Your task to perform on an android device: Open internet settings Image 0: 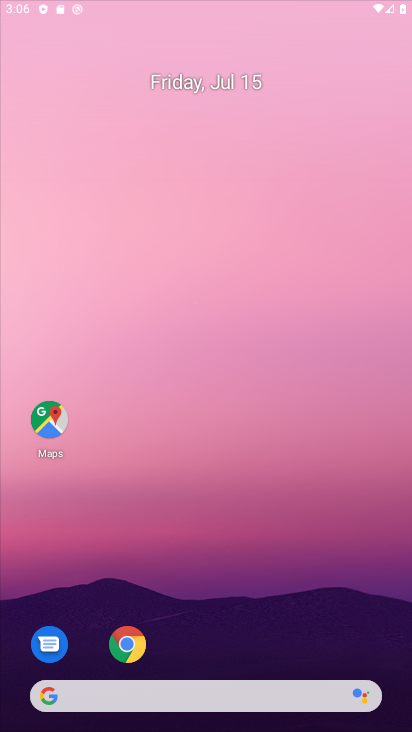
Step 0: drag from (200, 702) to (255, 34)
Your task to perform on an android device: Open internet settings Image 1: 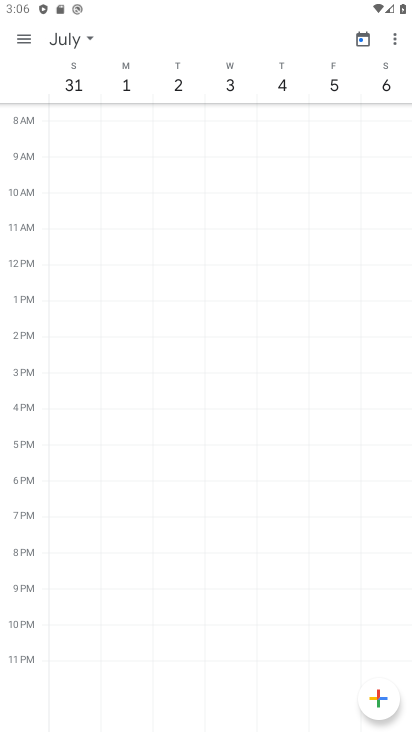
Step 1: press home button
Your task to perform on an android device: Open internet settings Image 2: 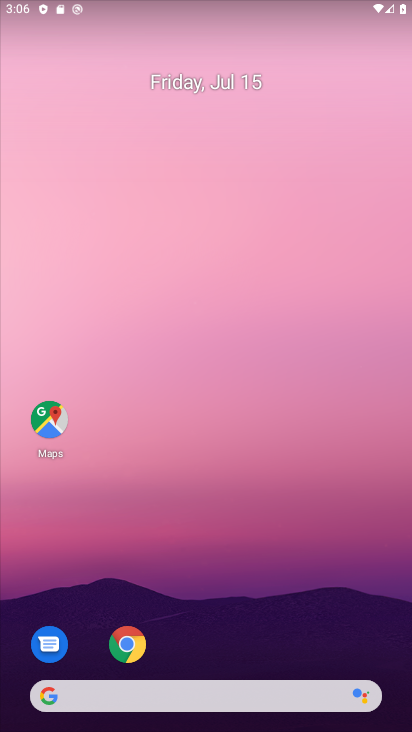
Step 2: drag from (178, 708) to (105, 2)
Your task to perform on an android device: Open internet settings Image 3: 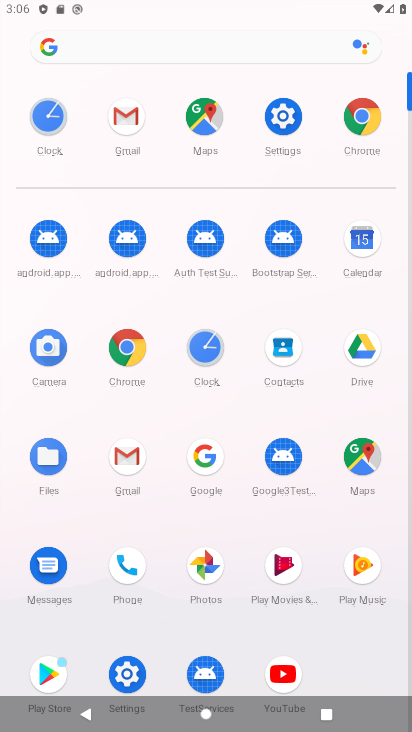
Step 3: click (291, 112)
Your task to perform on an android device: Open internet settings Image 4: 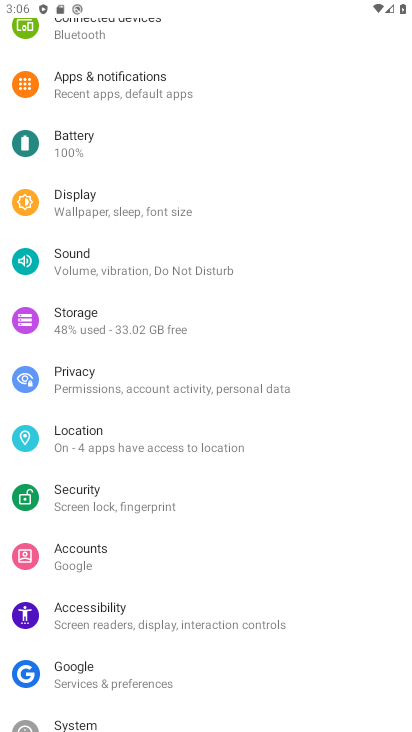
Step 4: drag from (111, 157) to (109, 462)
Your task to perform on an android device: Open internet settings Image 5: 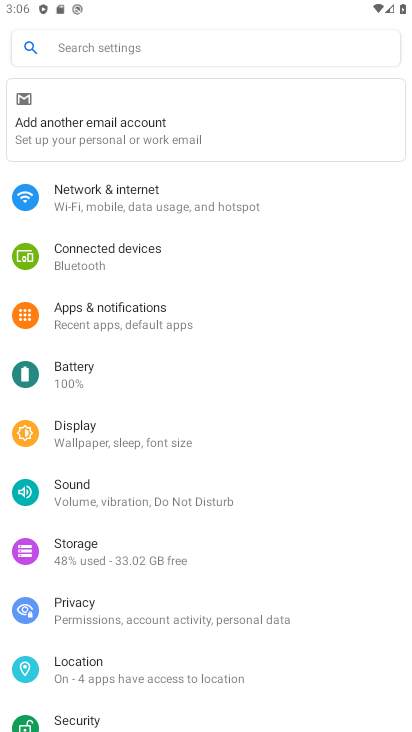
Step 5: click (147, 197)
Your task to perform on an android device: Open internet settings Image 6: 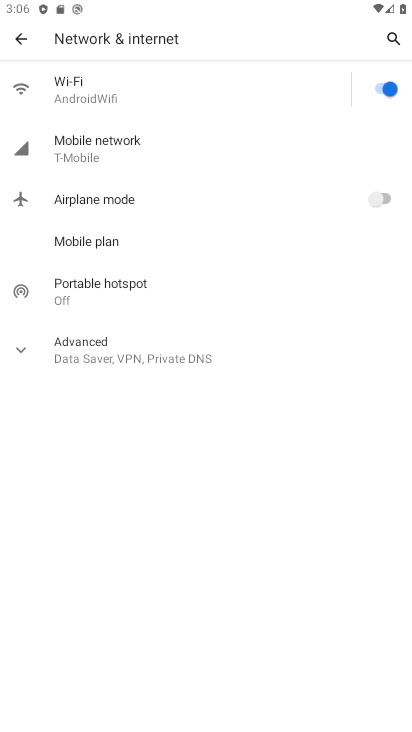
Step 6: click (139, 148)
Your task to perform on an android device: Open internet settings Image 7: 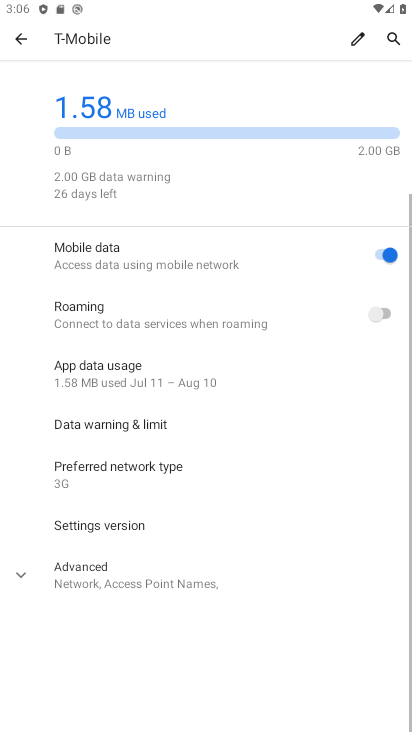
Step 7: task complete